Your task to perform on an android device: Turn off the flashlight Image 0: 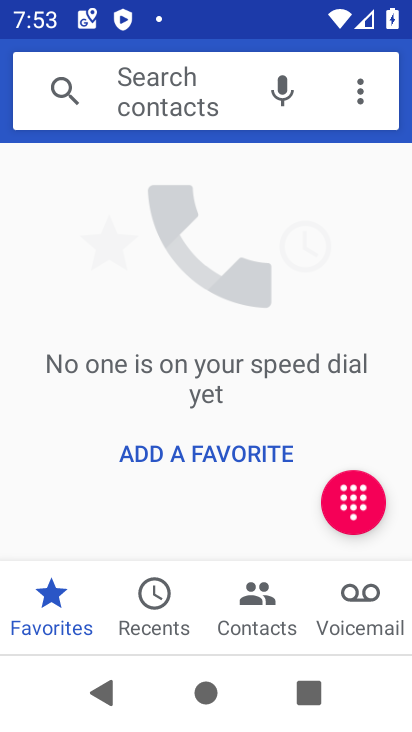
Step 0: press home button
Your task to perform on an android device: Turn off the flashlight Image 1: 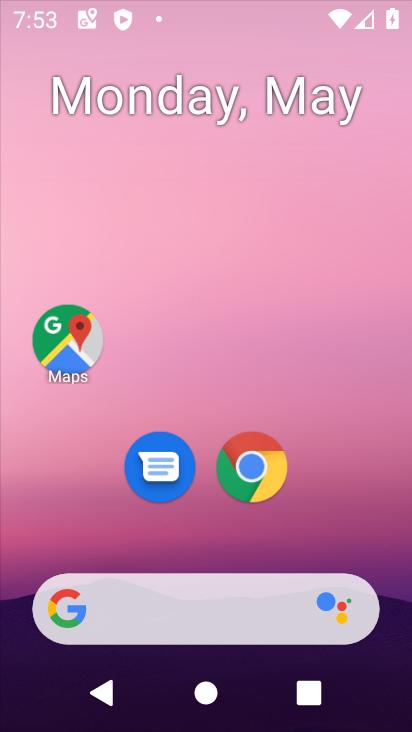
Step 1: task complete